Your task to perform on an android device: Turn on the flashlight Image 0: 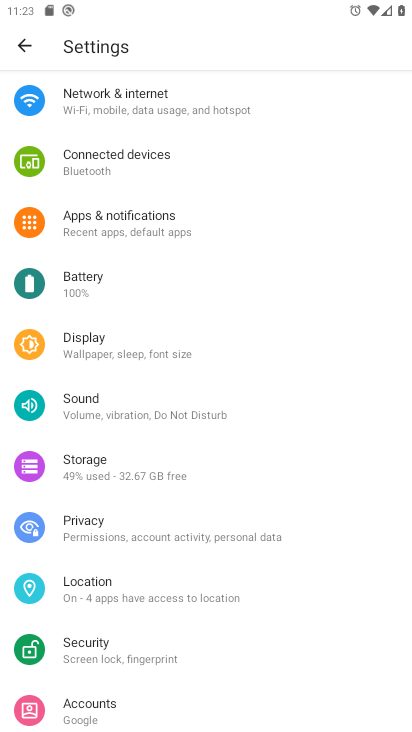
Step 0: drag from (220, 220) to (223, 486)
Your task to perform on an android device: Turn on the flashlight Image 1: 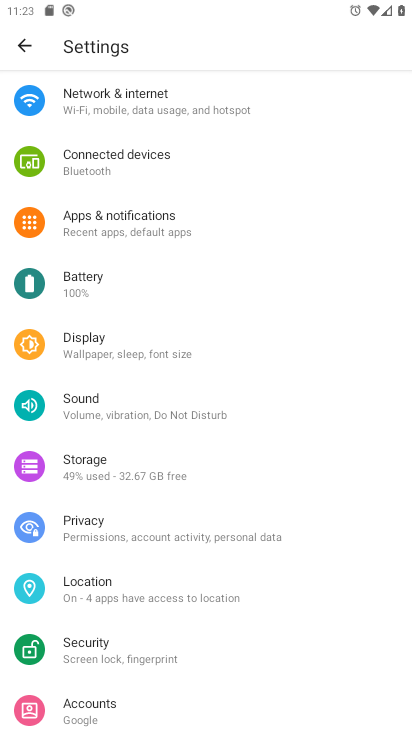
Step 1: click (20, 41)
Your task to perform on an android device: Turn on the flashlight Image 2: 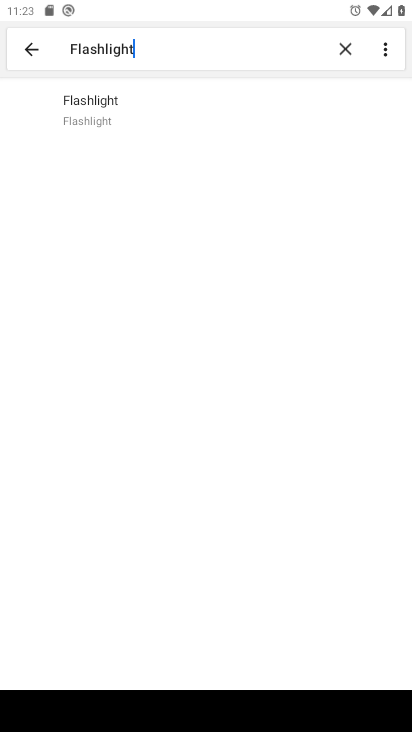
Step 2: click (96, 107)
Your task to perform on an android device: Turn on the flashlight Image 3: 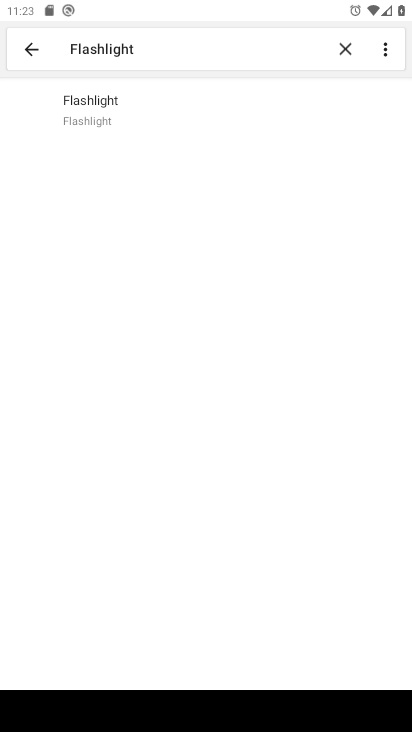
Step 3: click (100, 96)
Your task to perform on an android device: Turn on the flashlight Image 4: 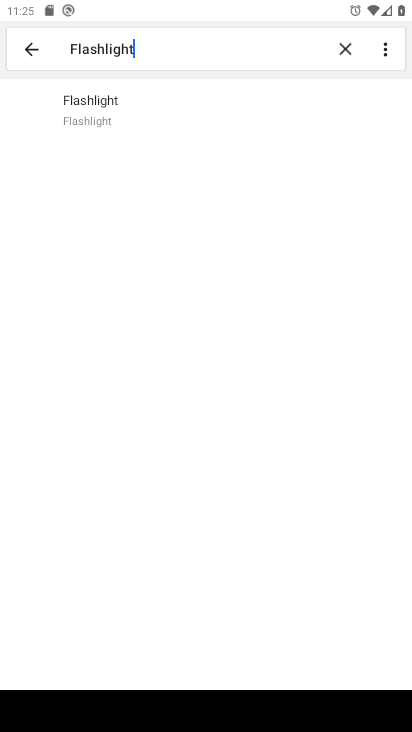
Step 4: task complete